Your task to perform on an android device: Go to settings Image 0: 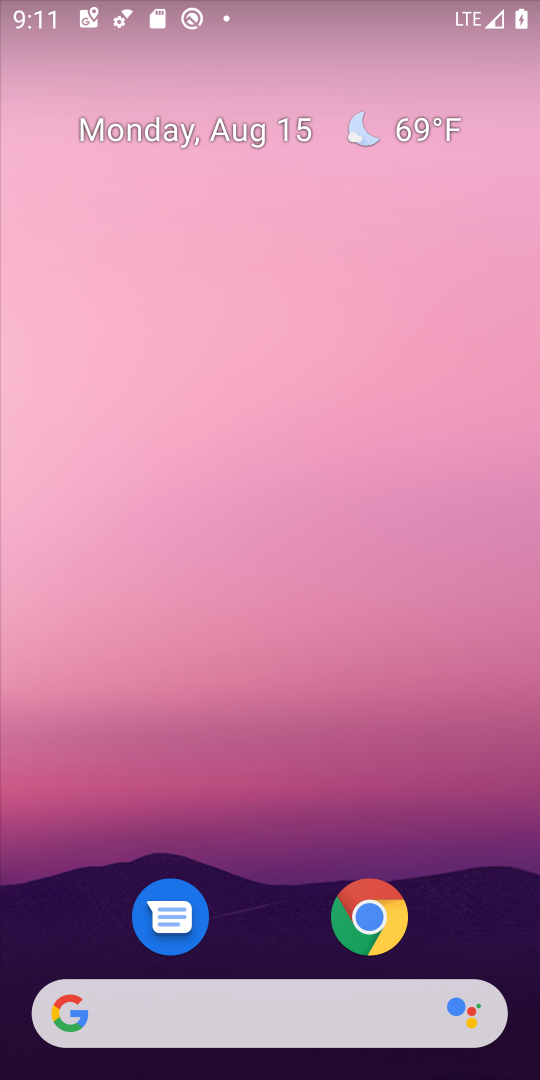
Step 0: press home button
Your task to perform on an android device: Go to settings Image 1: 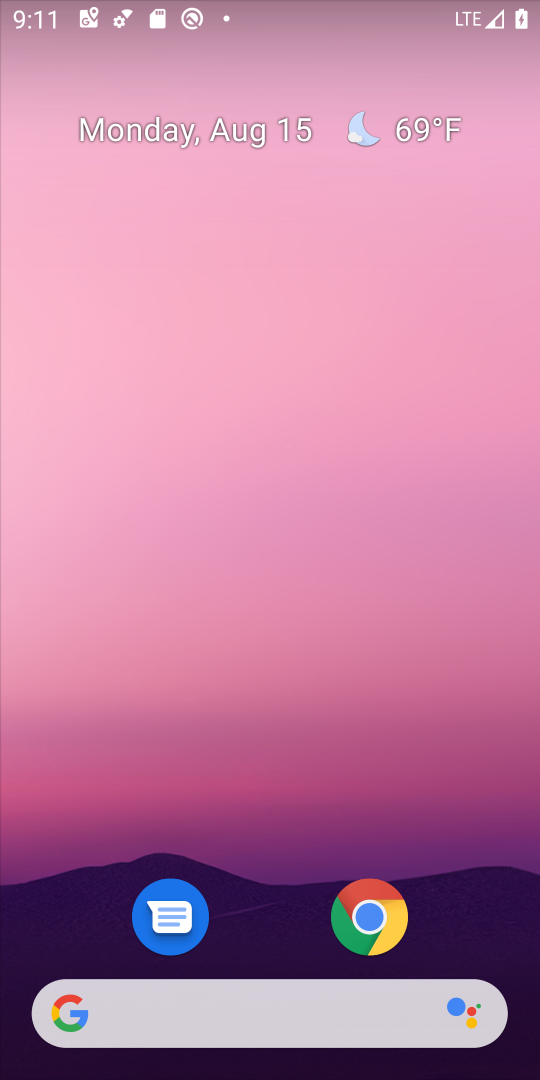
Step 1: drag from (284, 849) to (322, 2)
Your task to perform on an android device: Go to settings Image 2: 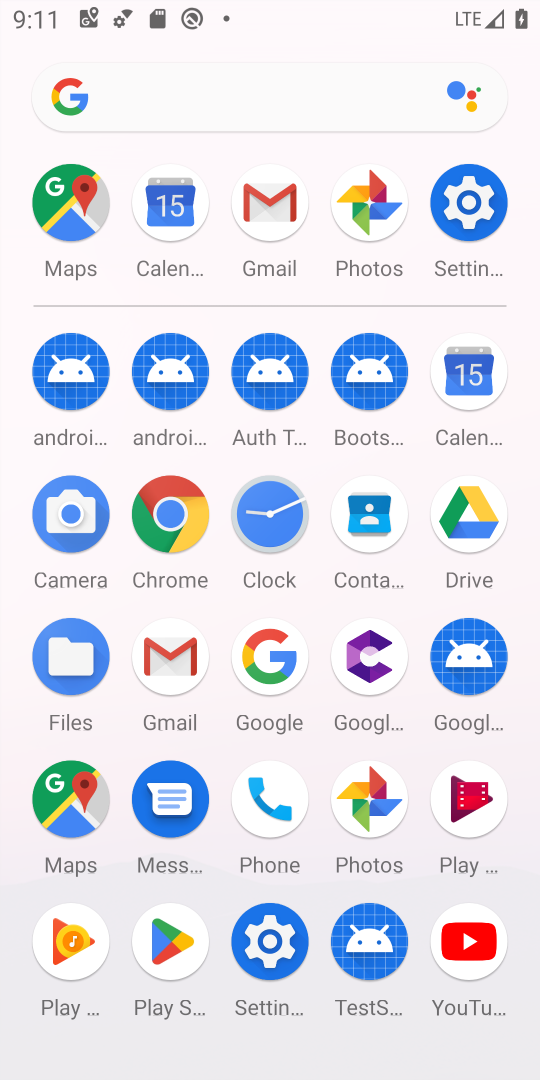
Step 2: click (467, 200)
Your task to perform on an android device: Go to settings Image 3: 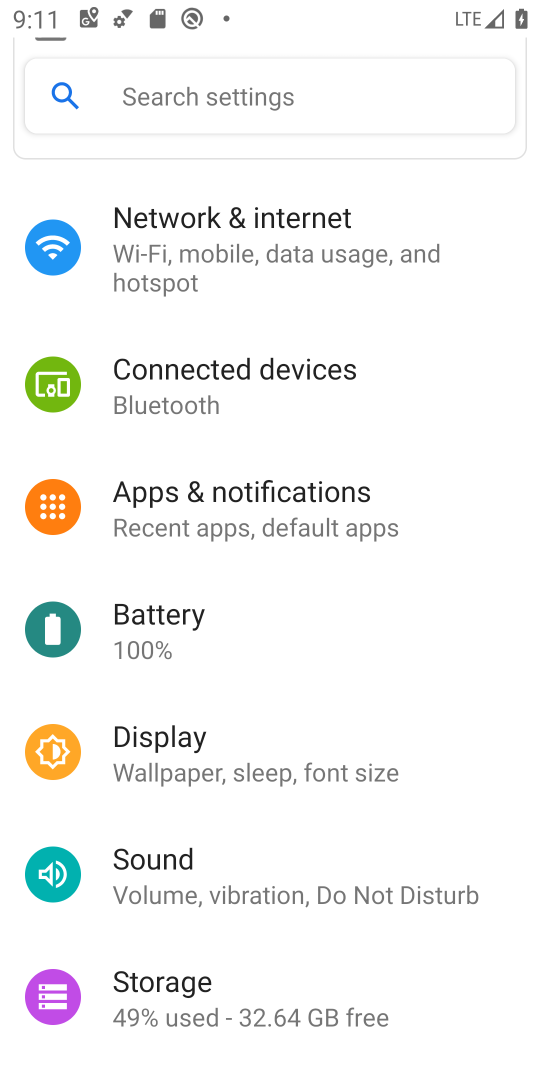
Step 3: task complete